Your task to perform on an android device: turn on sleep mode Image 0: 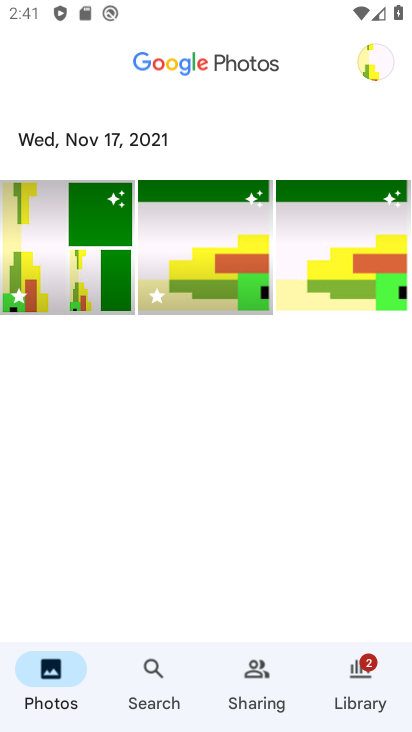
Step 0: press home button
Your task to perform on an android device: turn on sleep mode Image 1: 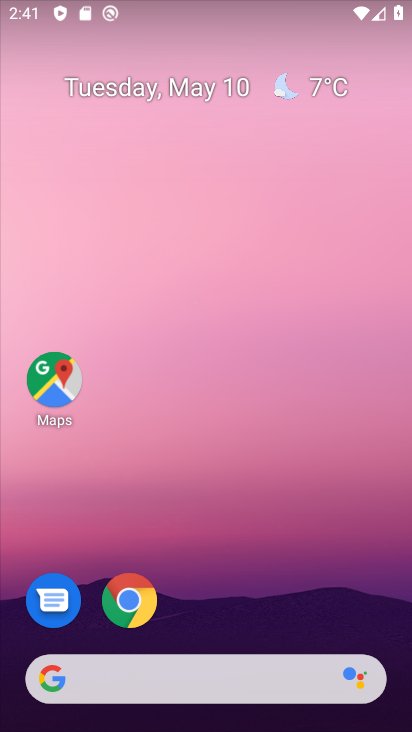
Step 1: drag from (183, 655) to (258, 169)
Your task to perform on an android device: turn on sleep mode Image 2: 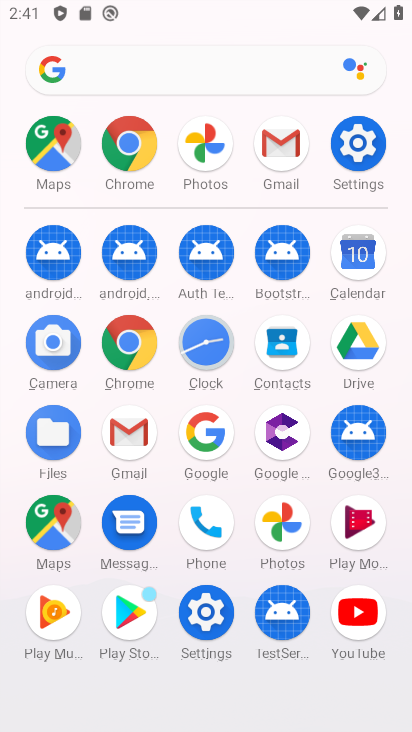
Step 2: click (369, 157)
Your task to perform on an android device: turn on sleep mode Image 3: 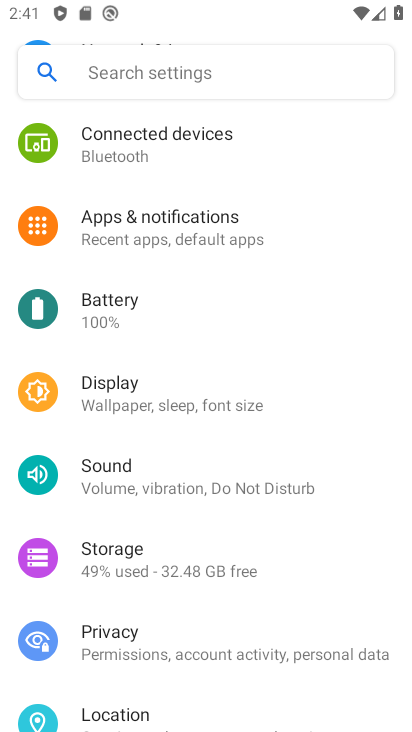
Step 3: click (132, 401)
Your task to perform on an android device: turn on sleep mode Image 4: 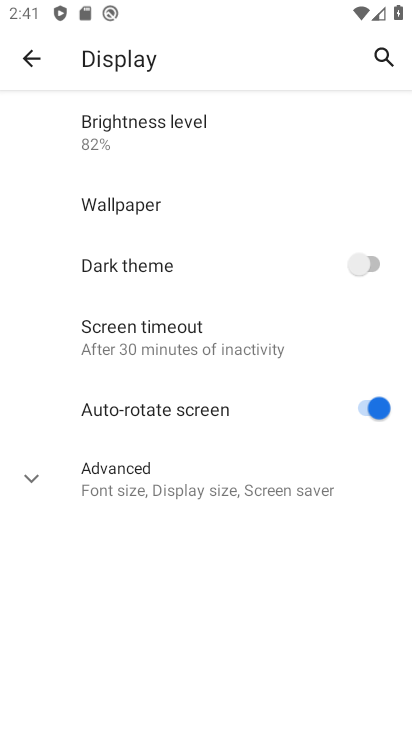
Step 4: click (190, 471)
Your task to perform on an android device: turn on sleep mode Image 5: 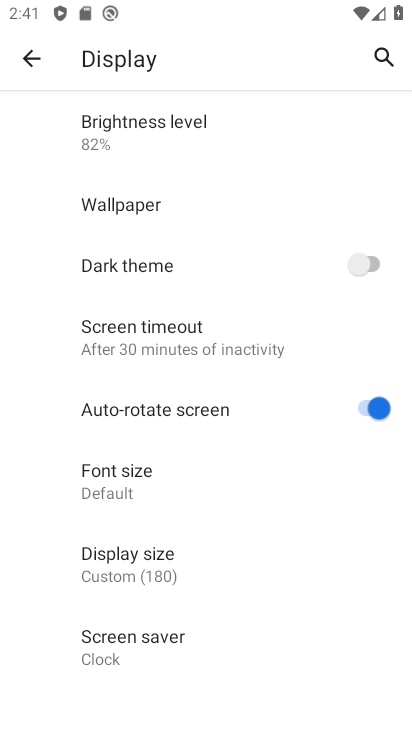
Step 5: task complete